Your task to perform on an android device: Open privacy settings Image 0: 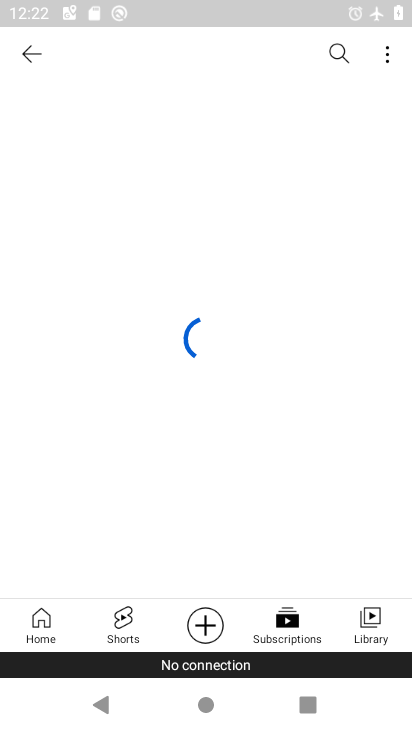
Step 0: press home button
Your task to perform on an android device: Open privacy settings Image 1: 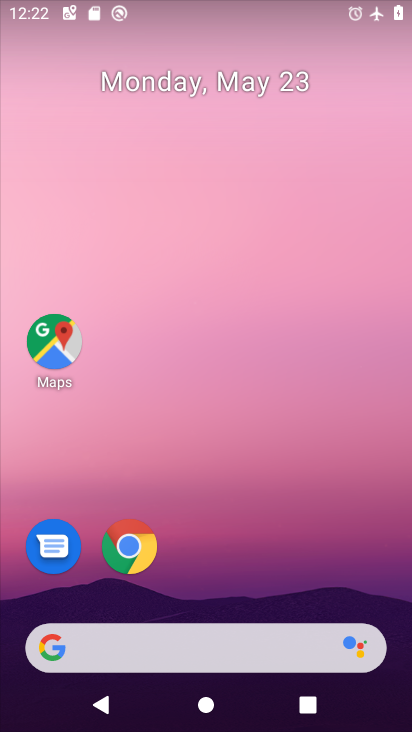
Step 1: drag from (249, 543) to (380, 12)
Your task to perform on an android device: Open privacy settings Image 2: 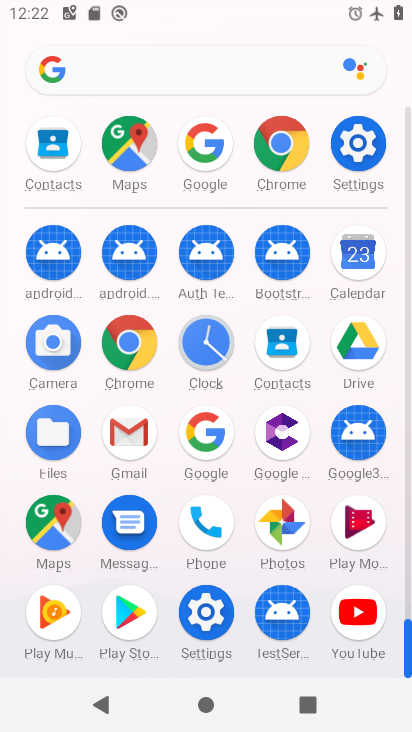
Step 2: click (364, 165)
Your task to perform on an android device: Open privacy settings Image 3: 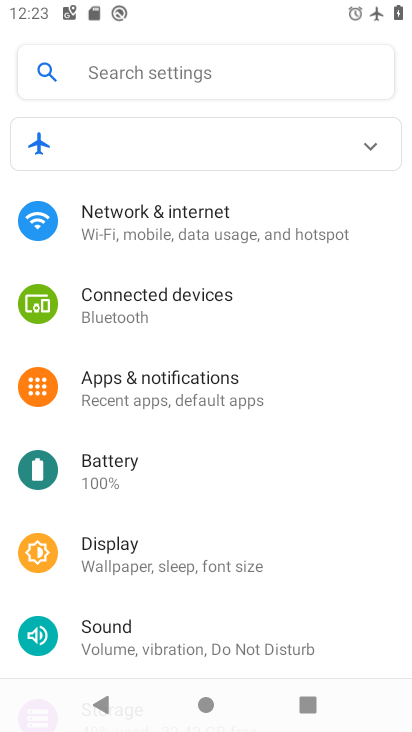
Step 3: drag from (195, 593) to (376, 54)
Your task to perform on an android device: Open privacy settings Image 4: 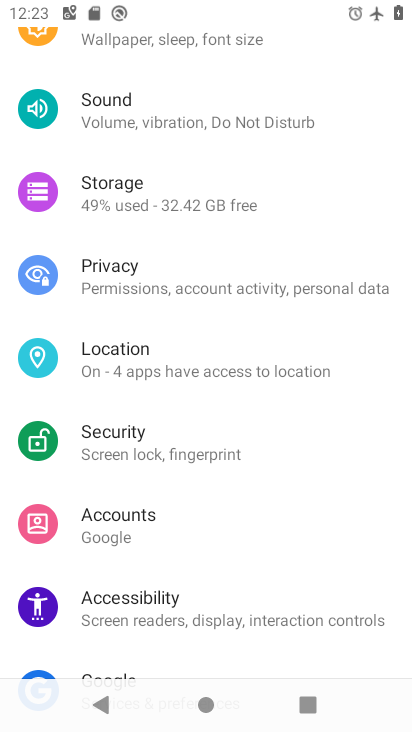
Step 4: click (190, 291)
Your task to perform on an android device: Open privacy settings Image 5: 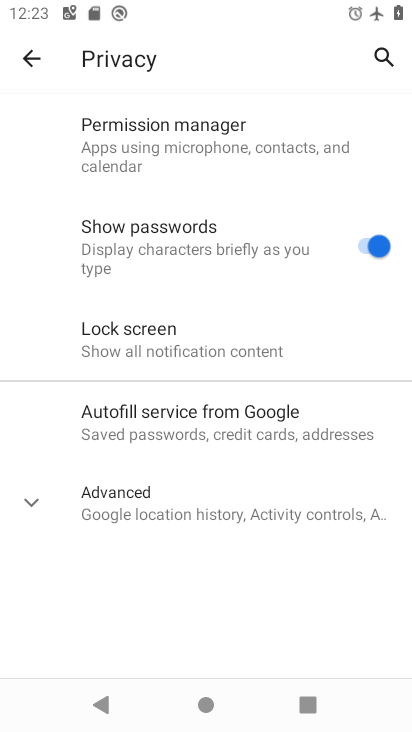
Step 5: task complete